Your task to perform on an android device: Search for vegetarian restaurants on Maps Image 0: 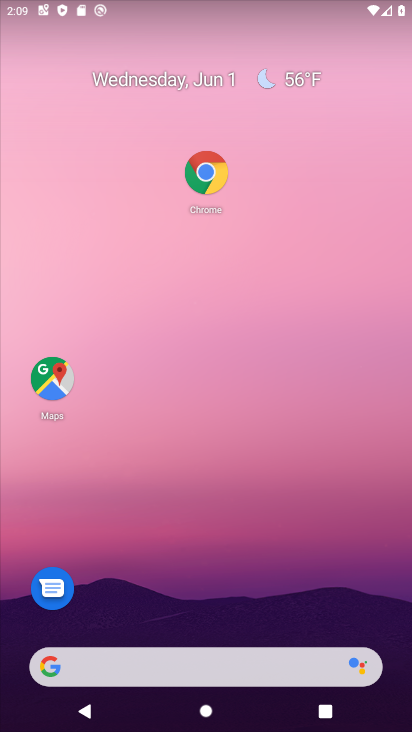
Step 0: drag from (232, 592) to (153, 79)
Your task to perform on an android device: Search for vegetarian restaurants on Maps Image 1: 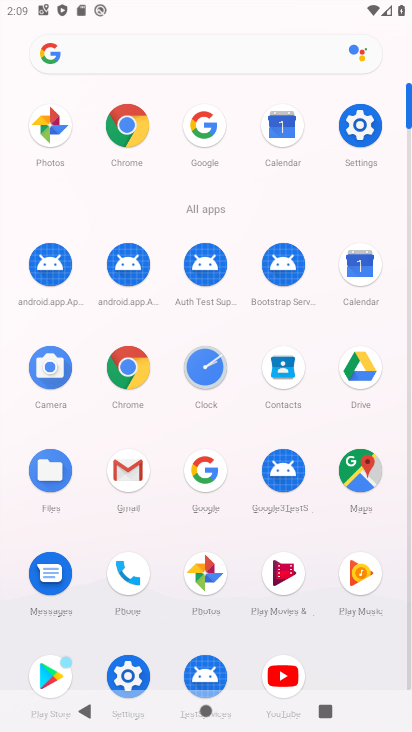
Step 1: click (360, 469)
Your task to perform on an android device: Search for vegetarian restaurants on Maps Image 2: 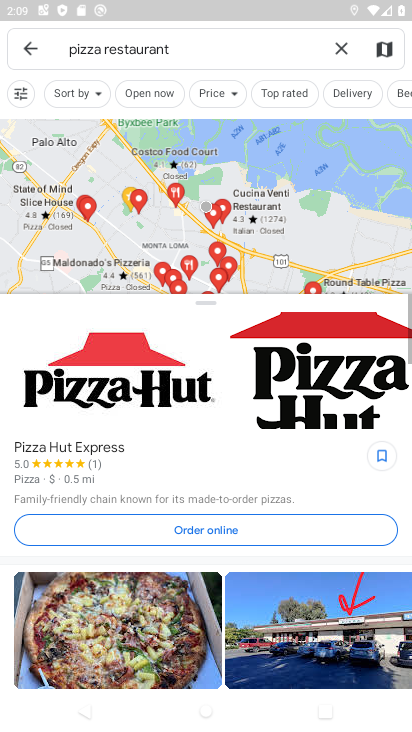
Step 2: click (210, 53)
Your task to perform on an android device: Search for vegetarian restaurants on Maps Image 3: 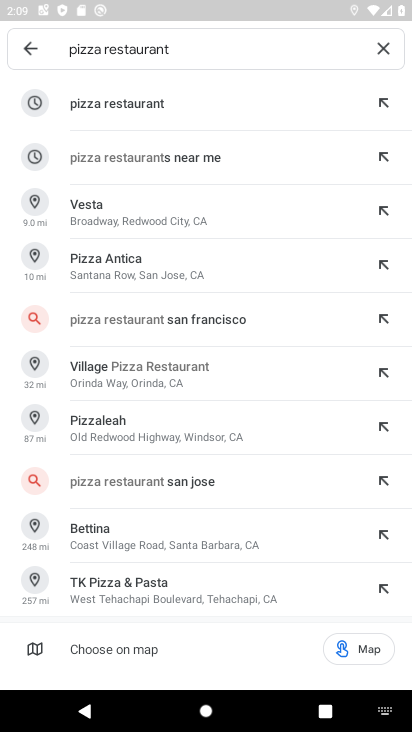
Step 3: click (390, 47)
Your task to perform on an android device: Search for vegetarian restaurants on Maps Image 4: 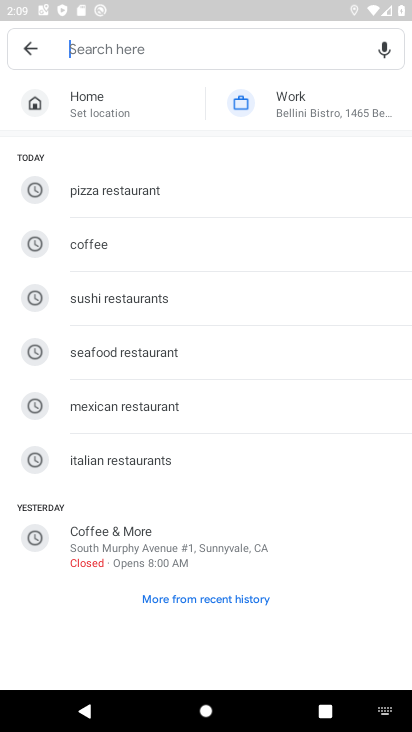
Step 4: type "vegetarian restaurent"
Your task to perform on an android device: Search for vegetarian restaurants on Maps Image 5: 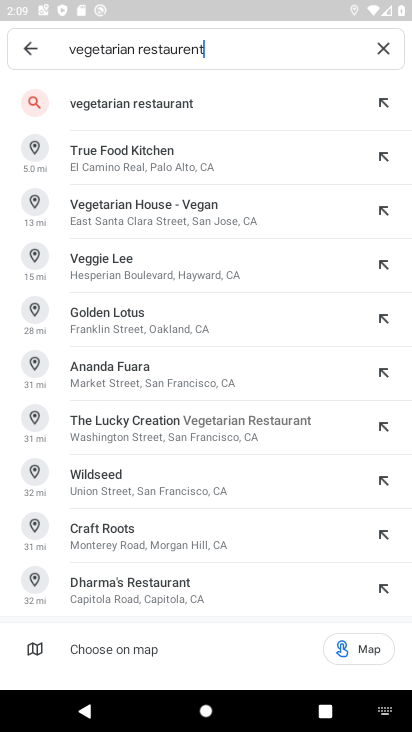
Step 5: click (149, 93)
Your task to perform on an android device: Search for vegetarian restaurants on Maps Image 6: 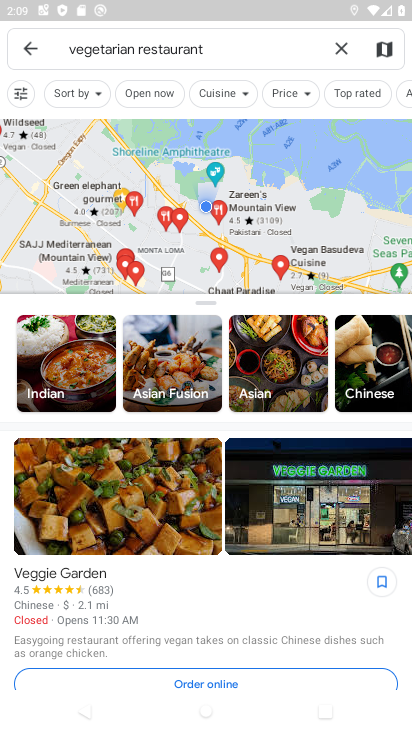
Step 6: task complete